Your task to perform on an android device: Open accessibility settings Image 0: 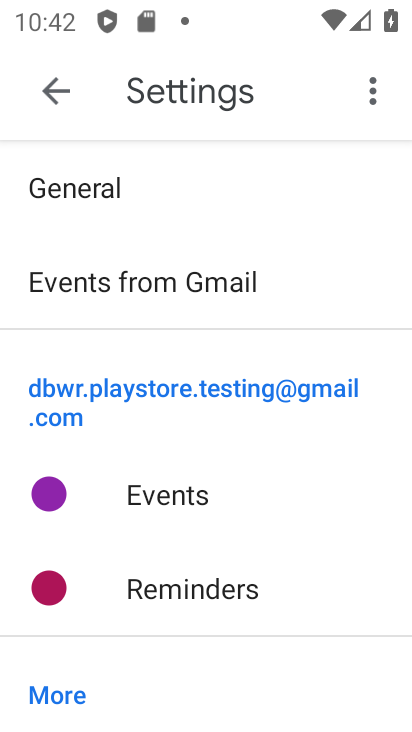
Step 0: press home button
Your task to perform on an android device: Open accessibility settings Image 1: 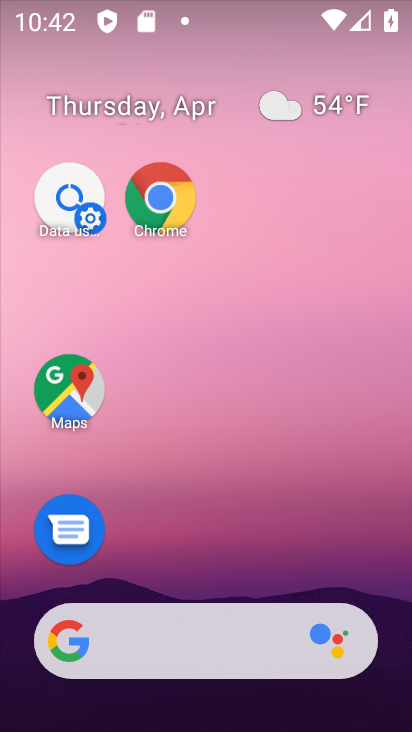
Step 1: drag from (177, 591) to (173, 55)
Your task to perform on an android device: Open accessibility settings Image 2: 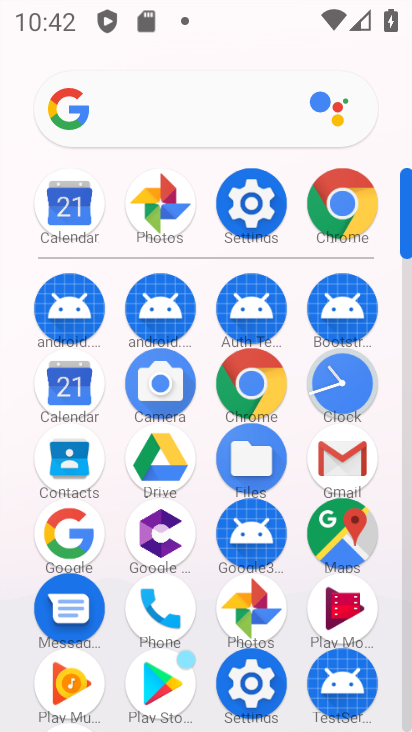
Step 2: click (255, 196)
Your task to perform on an android device: Open accessibility settings Image 3: 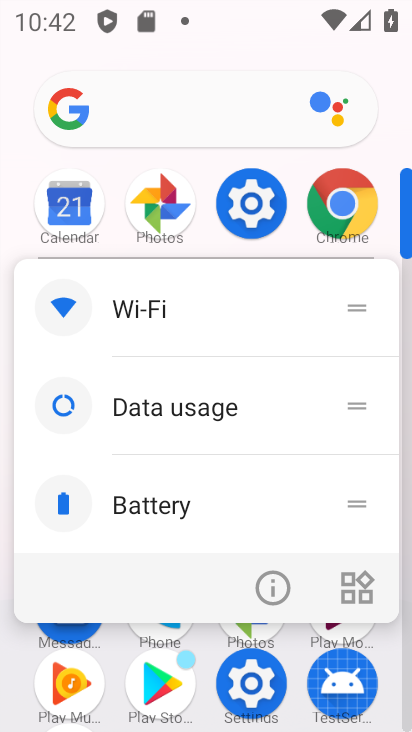
Step 3: click (248, 216)
Your task to perform on an android device: Open accessibility settings Image 4: 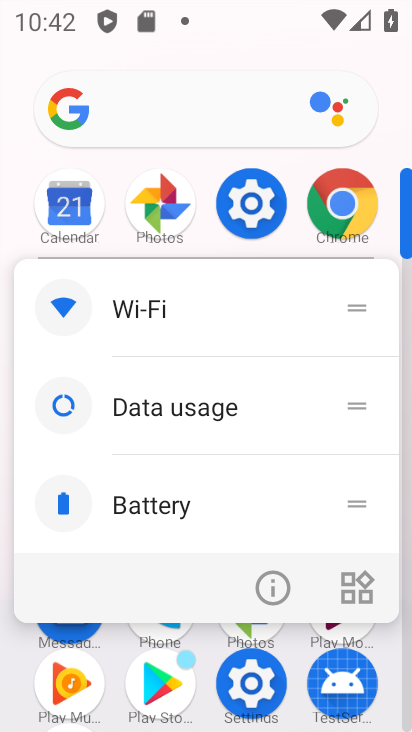
Step 4: click (256, 209)
Your task to perform on an android device: Open accessibility settings Image 5: 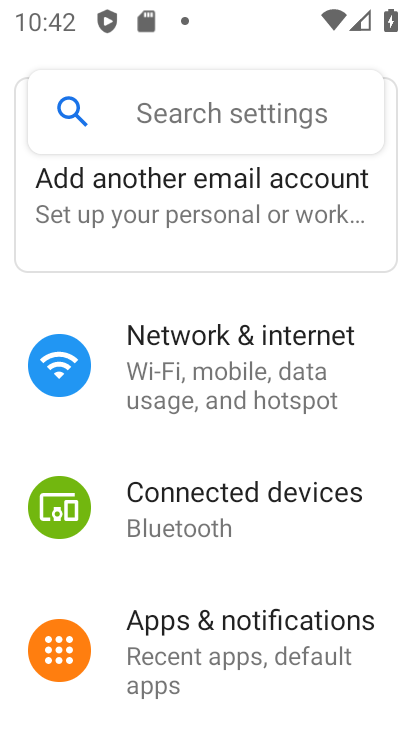
Step 5: drag from (269, 547) to (240, 170)
Your task to perform on an android device: Open accessibility settings Image 6: 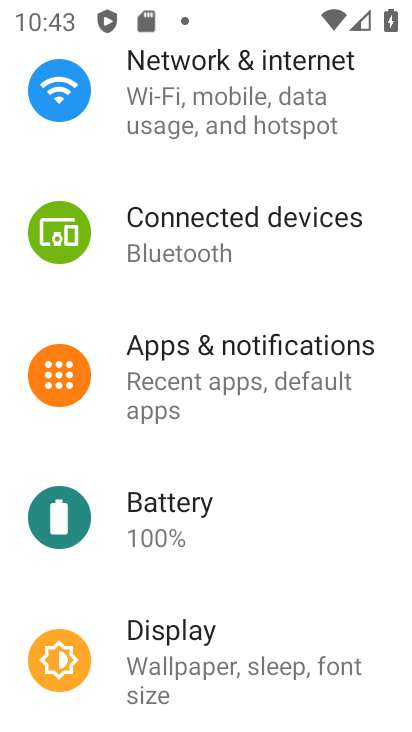
Step 6: drag from (213, 505) to (196, 87)
Your task to perform on an android device: Open accessibility settings Image 7: 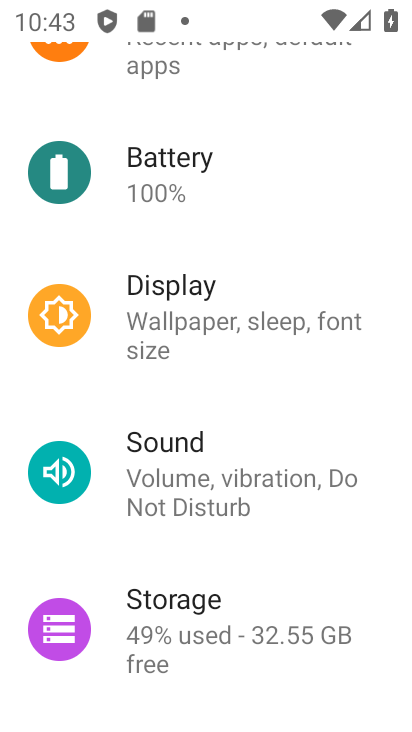
Step 7: drag from (232, 608) to (195, 158)
Your task to perform on an android device: Open accessibility settings Image 8: 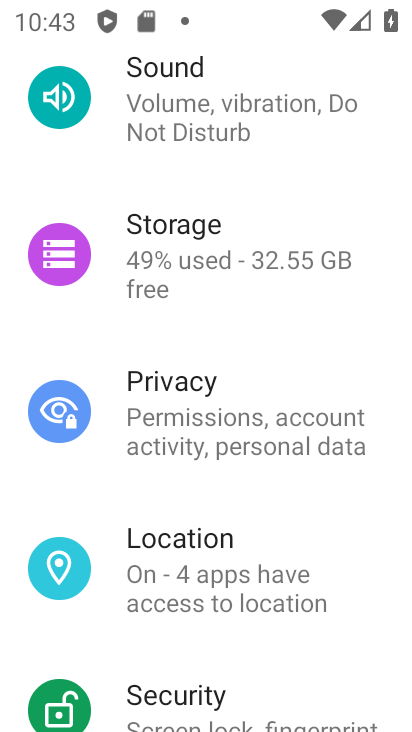
Step 8: drag from (227, 638) to (219, 98)
Your task to perform on an android device: Open accessibility settings Image 9: 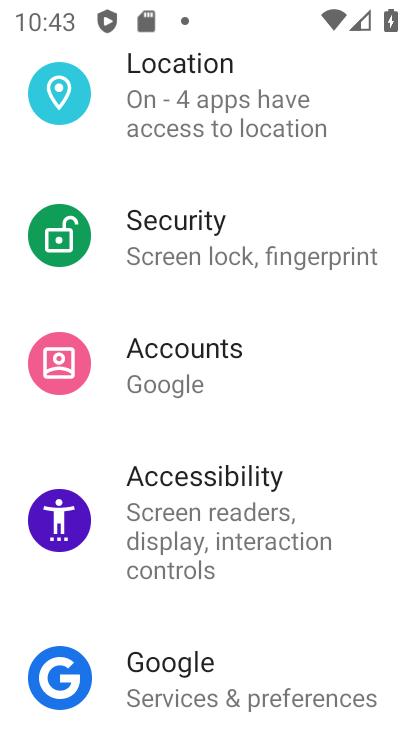
Step 9: click (230, 537)
Your task to perform on an android device: Open accessibility settings Image 10: 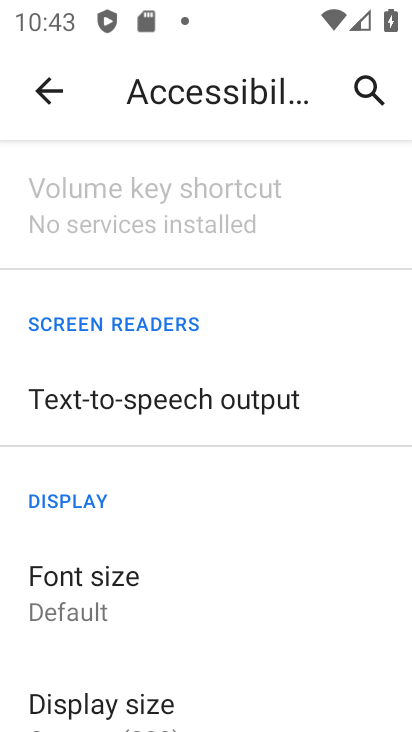
Step 10: task complete